Your task to perform on an android device: Open Google Chrome Image 0: 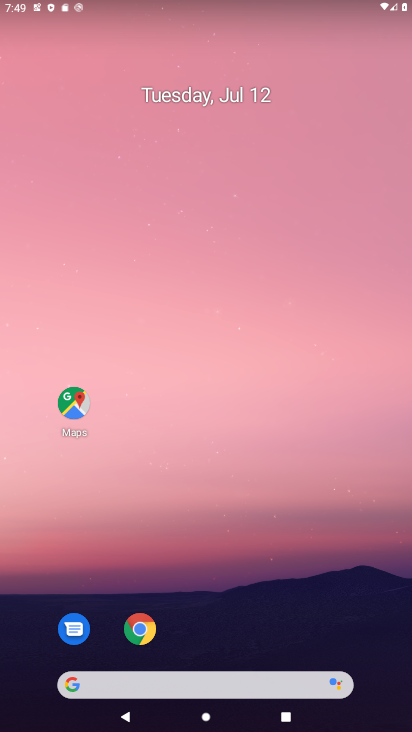
Step 0: drag from (214, 383) to (198, 242)
Your task to perform on an android device: Open Google Chrome Image 1: 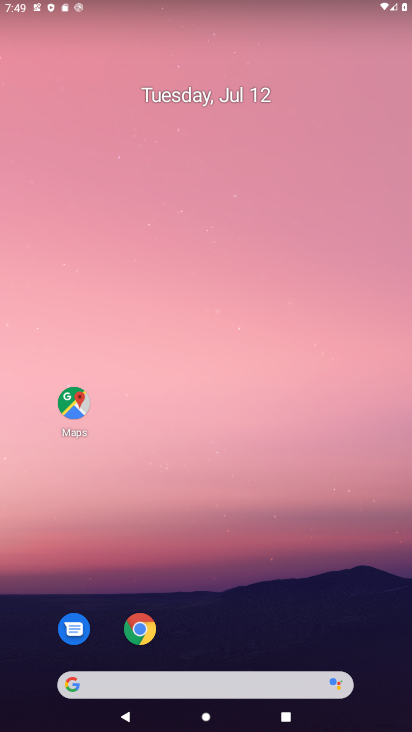
Step 1: drag from (244, 618) to (243, 232)
Your task to perform on an android device: Open Google Chrome Image 2: 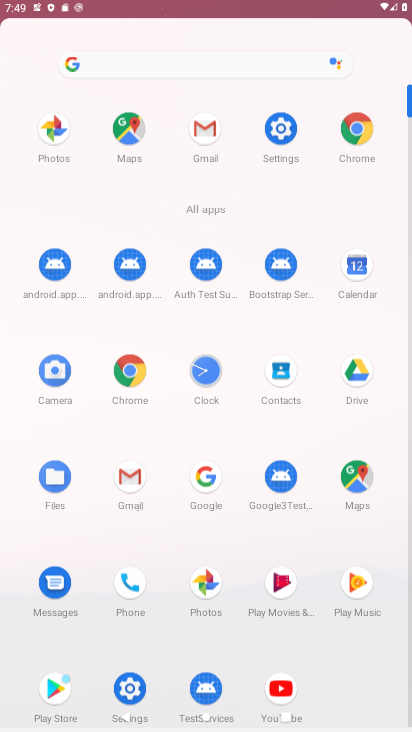
Step 2: drag from (184, 549) to (195, 77)
Your task to perform on an android device: Open Google Chrome Image 3: 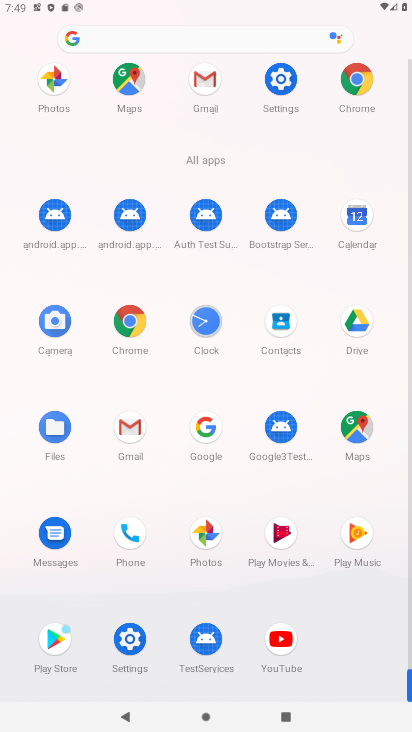
Step 3: click (356, 81)
Your task to perform on an android device: Open Google Chrome Image 4: 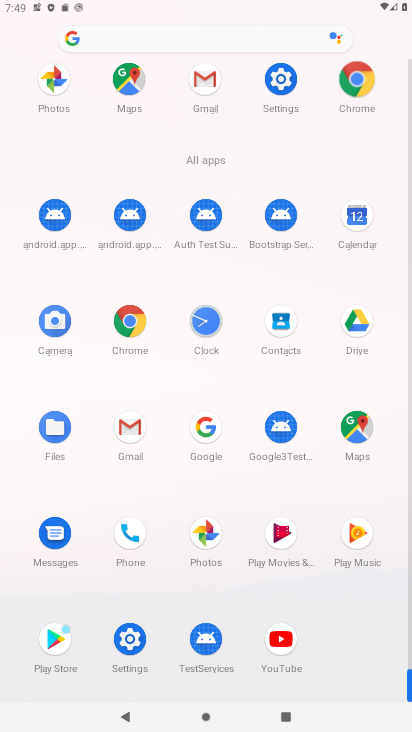
Step 4: click (358, 81)
Your task to perform on an android device: Open Google Chrome Image 5: 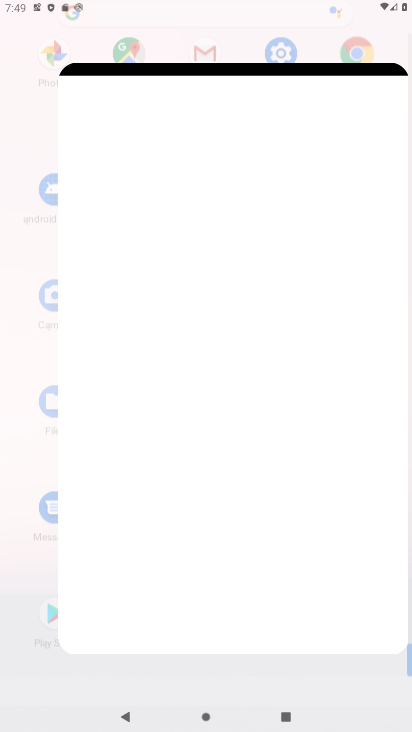
Step 5: click (359, 81)
Your task to perform on an android device: Open Google Chrome Image 6: 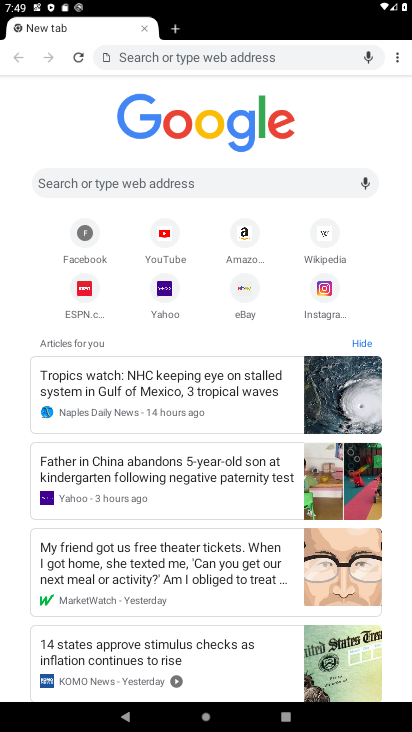
Step 6: task complete